Your task to perform on an android device: Open the stopwatch Image 0: 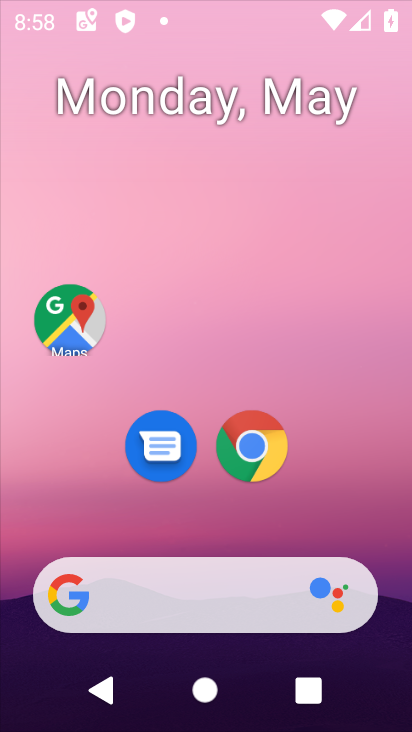
Step 0: press home button
Your task to perform on an android device: Open the stopwatch Image 1: 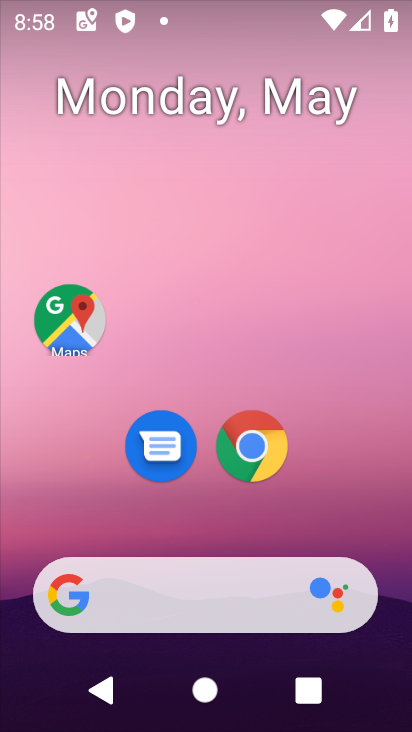
Step 1: drag from (217, 524) to (234, 85)
Your task to perform on an android device: Open the stopwatch Image 2: 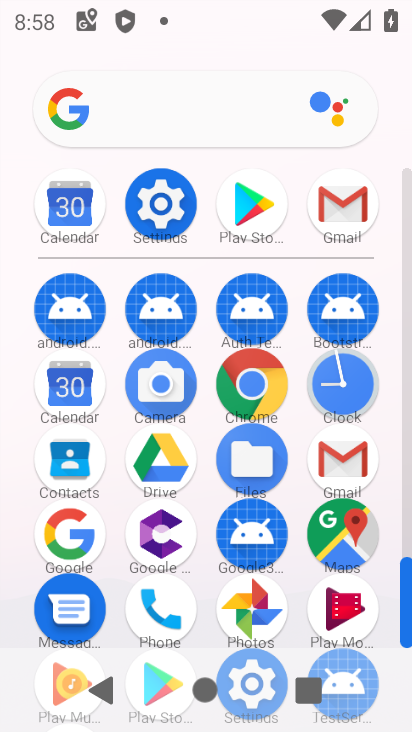
Step 2: click (340, 371)
Your task to perform on an android device: Open the stopwatch Image 3: 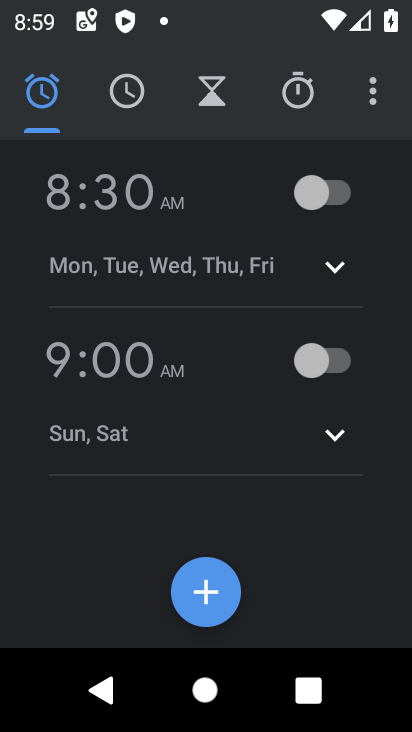
Step 3: click (294, 85)
Your task to perform on an android device: Open the stopwatch Image 4: 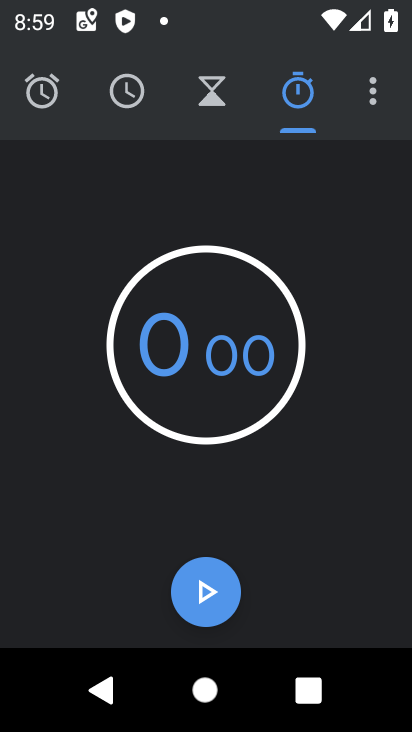
Step 4: click (202, 582)
Your task to perform on an android device: Open the stopwatch Image 5: 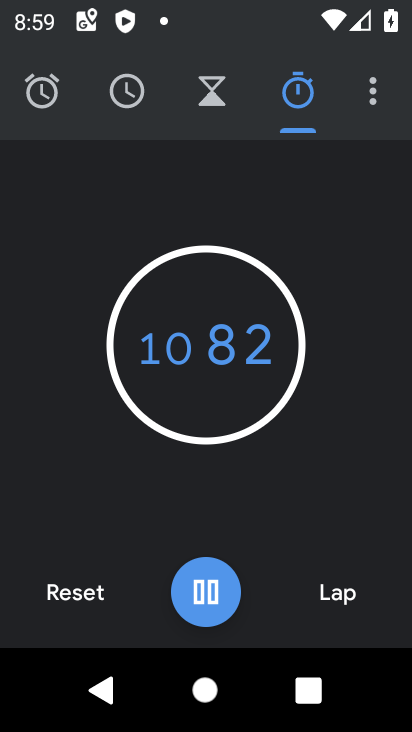
Step 5: click (84, 598)
Your task to perform on an android device: Open the stopwatch Image 6: 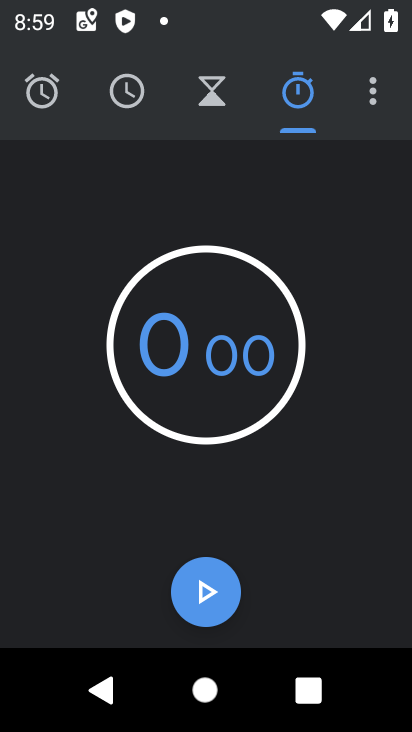
Step 6: task complete